Your task to perform on an android device: Search for Mexican restaurants on Maps Image 0: 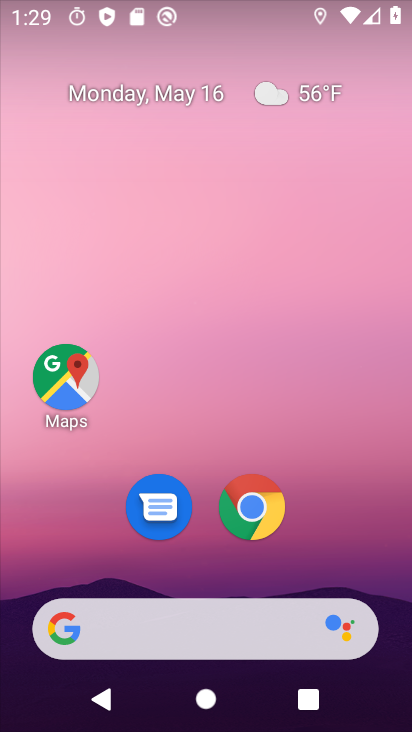
Step 0: click (73, 381)
Your task to perform on an android device: Search for Mexican restaurants on Maps Image 1: 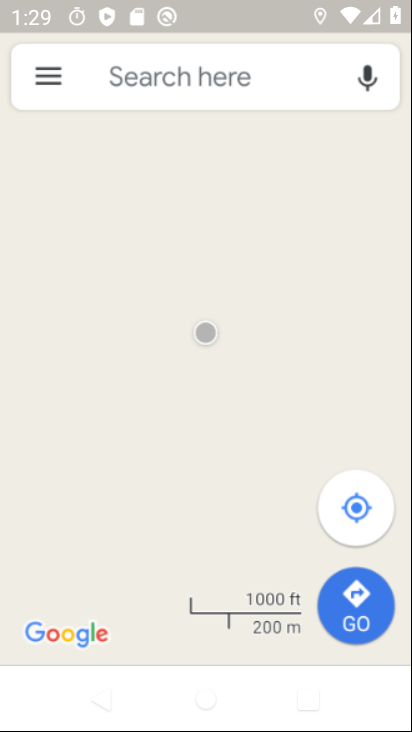
Step 1: click (198, 78)
Your task to perform on an android device: Search for Mexican restaurants on Maps Image 2: 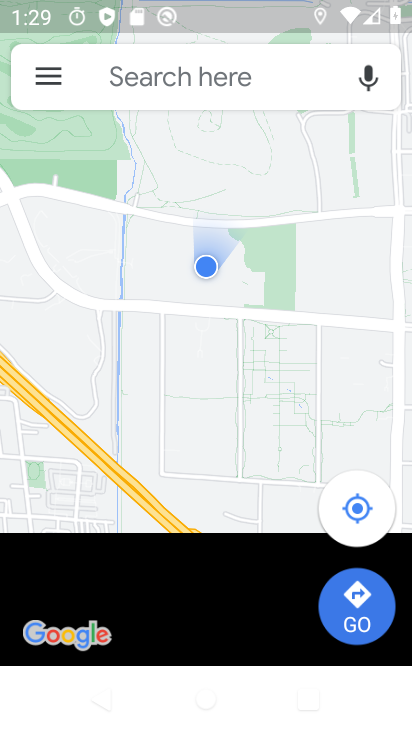
Step 2: click (198, 78)
Your task to perform on an android device: Search for Mexican restaurants on Maps Image 3: 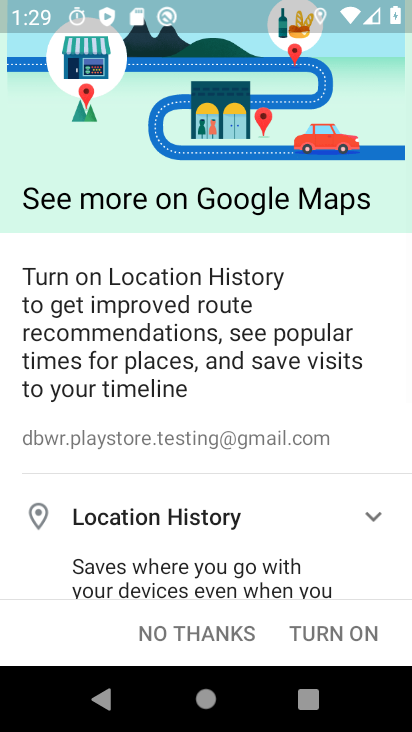
Step 3: click (172, 621)
Your task to perform on an android device: Search for Mexican restaurants on Maps Image 4: 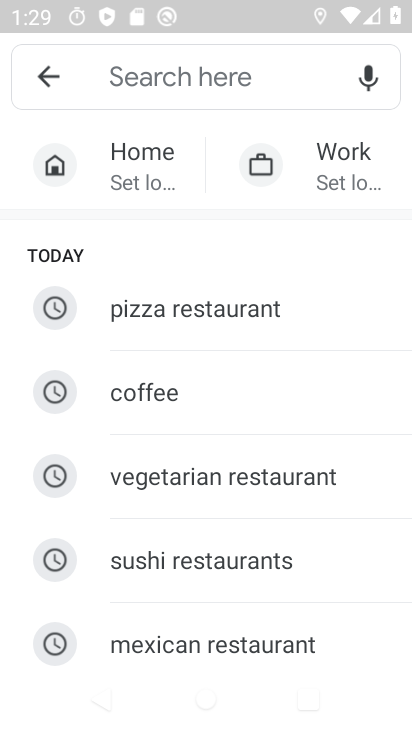
Step 4: click (155, 652)
Your task to perform on an android device: Search for Mexican restaurants on Maps Image 5: 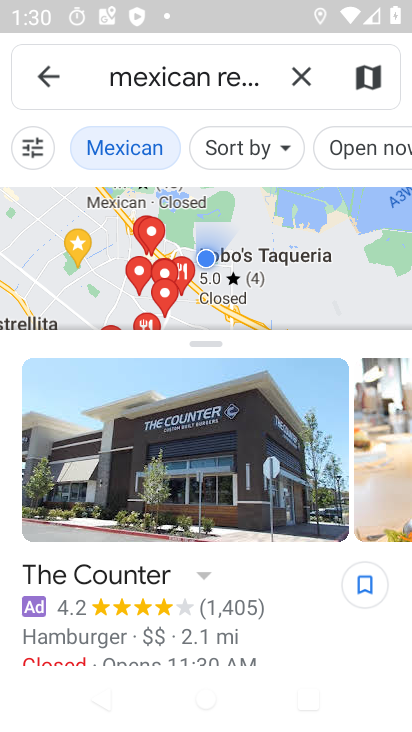
Step 5: task complete